Your task to perform on an android device: change the clock style Image 0: 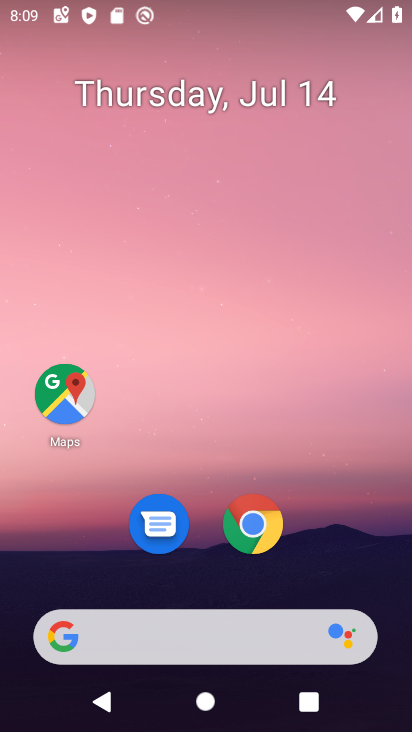
Step 0: drag from (314, 474) to (340, 5)
Your task to perform on an android device: change the clock style Image 1: 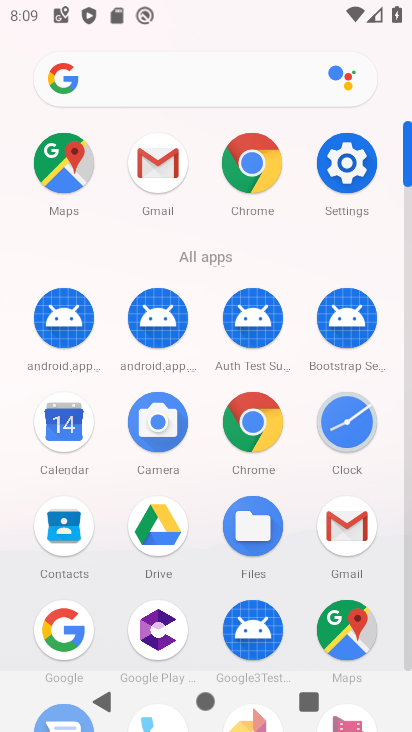
Step 1: click (343, 420)
Your task to perform on an android device: change the clock style Image 2: 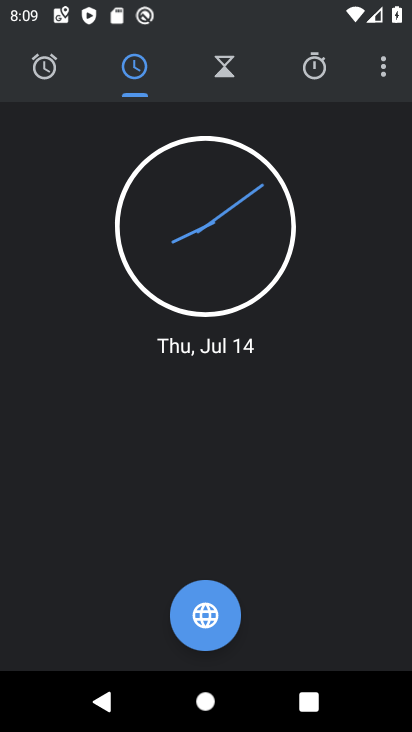
Step 2: click (384, 76)
Your task to perform on an android device: change the clock style Image 3: 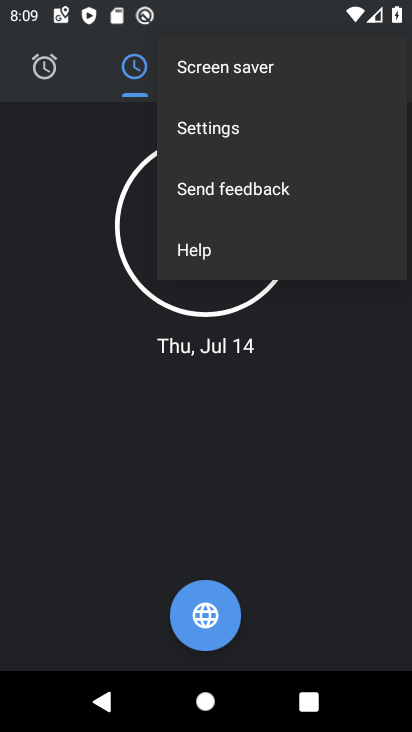
Step 3: click (250, 132)
Your task to perform on an android device: change the clock style Image 4: 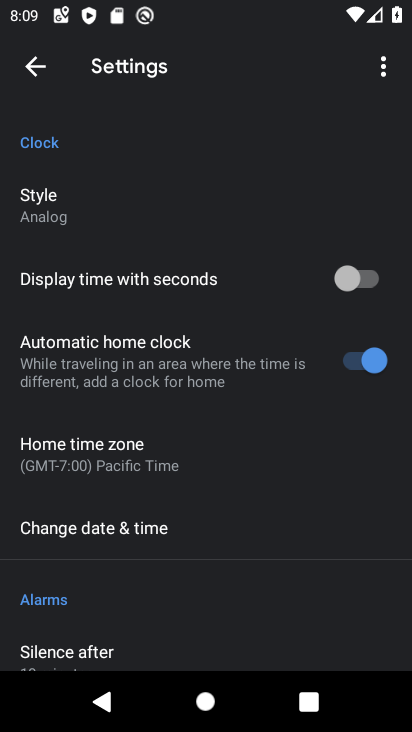
Step 4: click (67, 217)
Your task to perform on an android device: change the clock style Image 5: 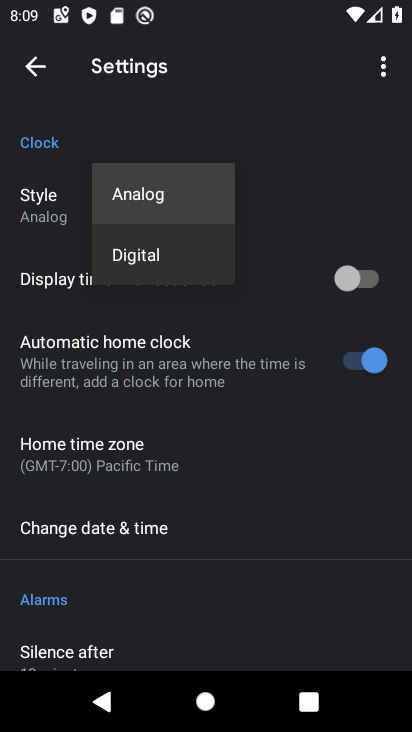
Step 5: click (133, 247)
Your task to perform on an android device: change the clock style Image 6: 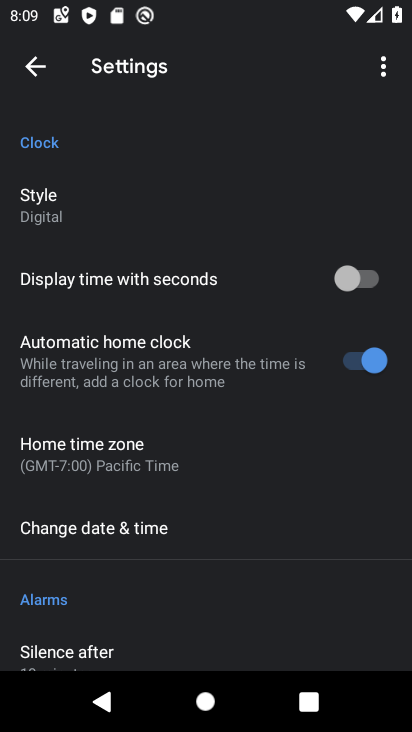
Step 6: click (39, 68)
Your task to perform on an android device: change the clock style Image 7: 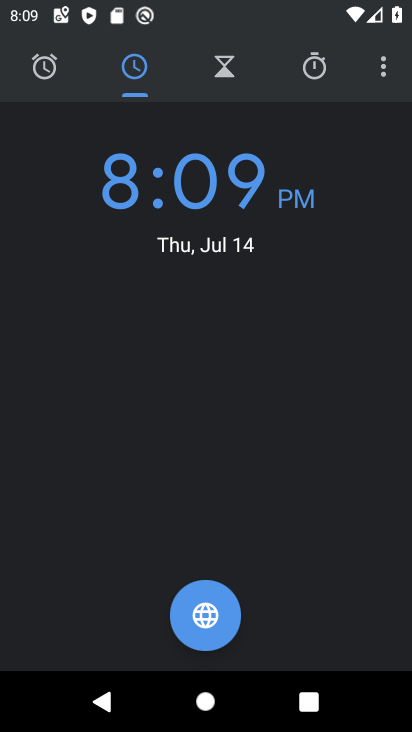
Step 7: task complete